Your task to perform on an android device: Open calendar and show me the third week of next month Image 0: 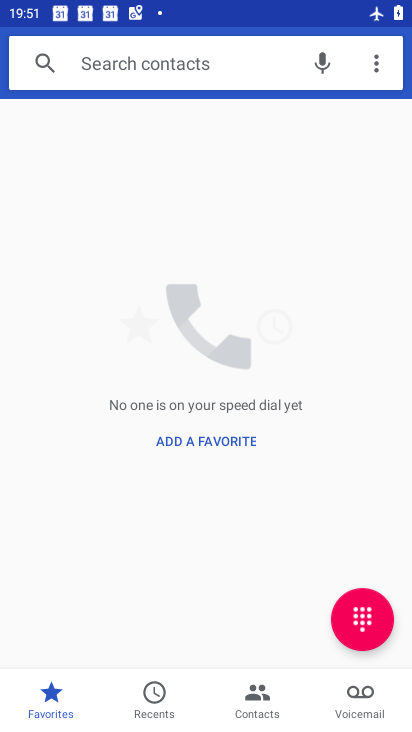
Step 0: press home button
Your task to perform on an android device: Open calendar and show me the third week of next month Image 1: 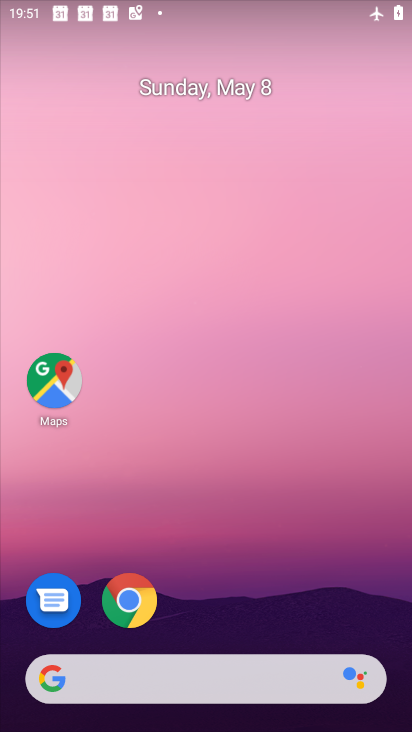
Step 1: drag from (257, 721) to (252, 286)
Your task to perform on an android device: Open calendar and show me the third week of next month Image 2: 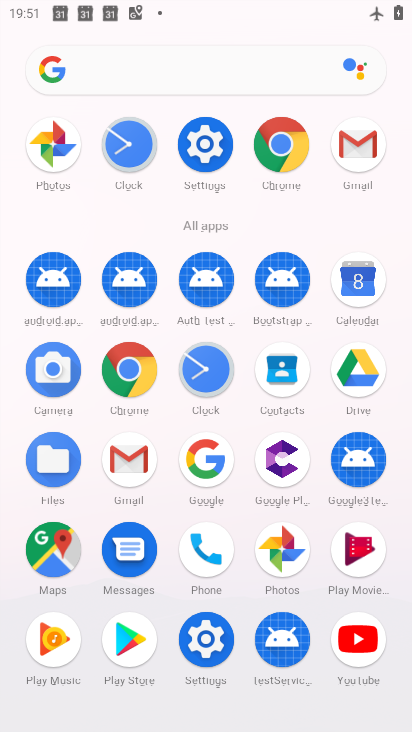
Step 2: click (356, 291)
Your task to perform on an android device: Open calendar and show me the third week of next month Image 3: 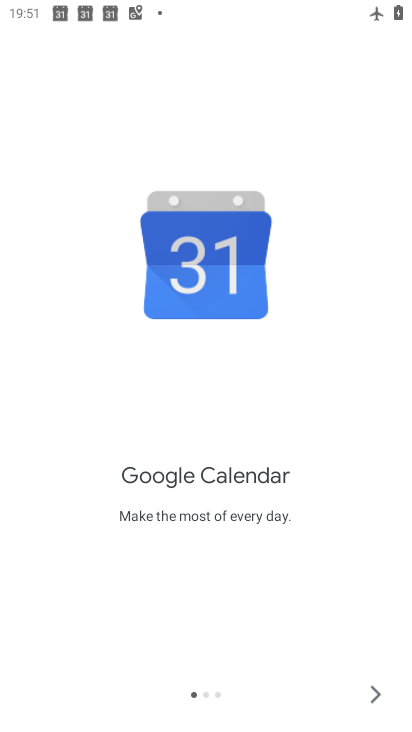
Step 3: click (372, 693)
Your task to perform on an android device: Open calendar and show me the third week of next month Image 4: 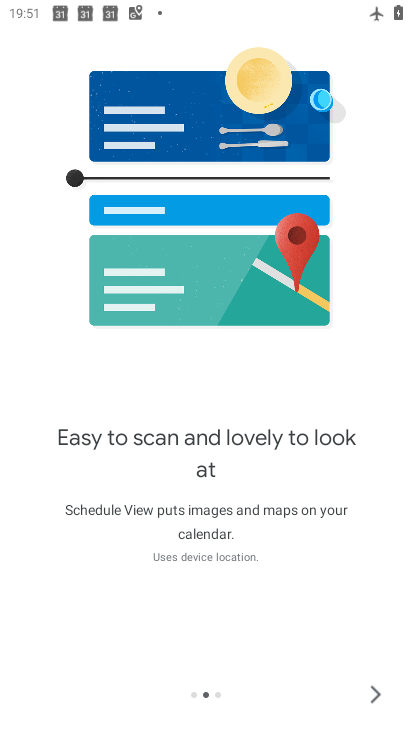
Step 4: click (368, 692)
Your task to perform on an android device: Open calendar and show me the third week of next month Image 5: 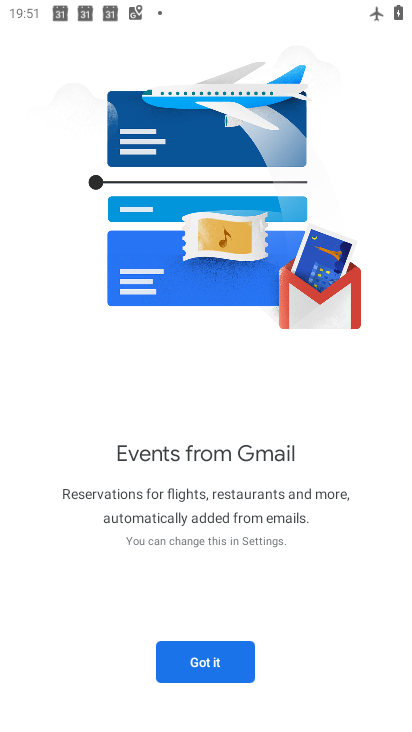
Step 5: click (230, 650)
Your task to perform on an android device: Open calendar and show me the third week of next month Image 6: 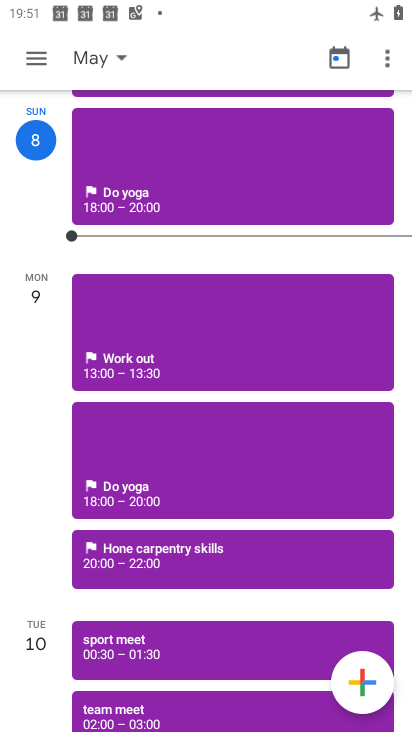
Step 6: click (40, 61)
Your task to perform on an android device: Open calendar and show me the third week of next month Image 7: 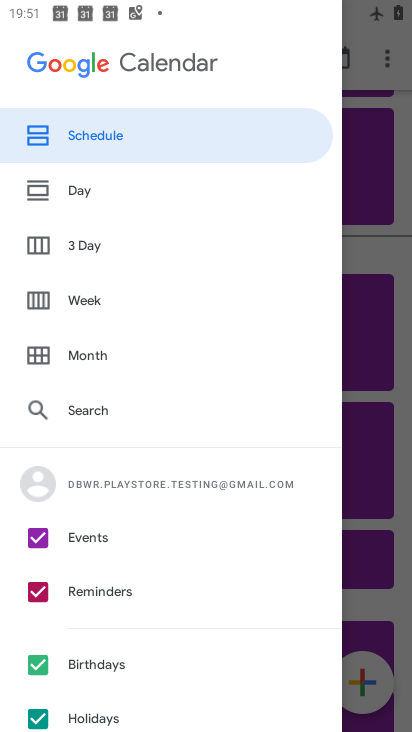
Step 7: click (96, 351)
Your task to perform on an android device: Open calendar and show me the third week of next month Image 8: 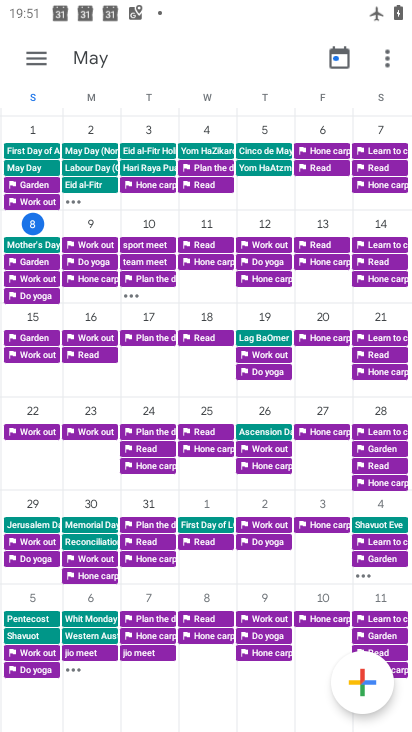
Step 8: drag from (379, 490) to (0, 389)
Your task to perform on an android device: Open calendar and show me the third week of next month Image 9: 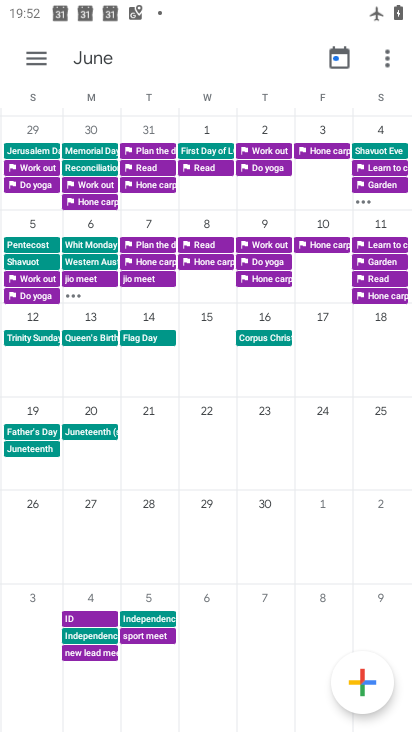
Step 9: click (87, 314)
Your task to perform on an android device: Open calendar and show me the third week of next month Image 10: 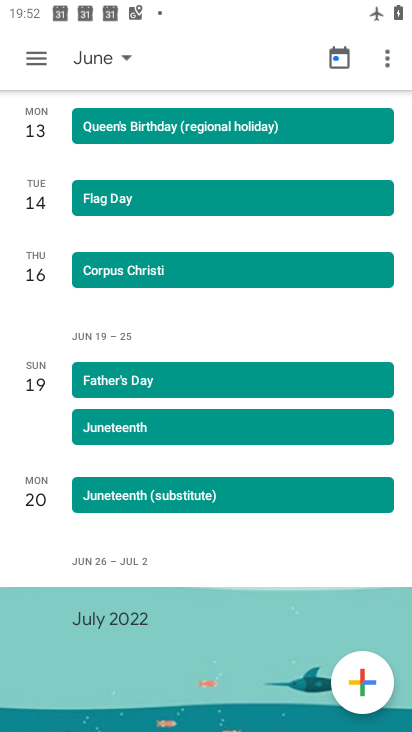
Step 10: task complete